Your task to perform on an android device: Do I have any events today? Image 0: 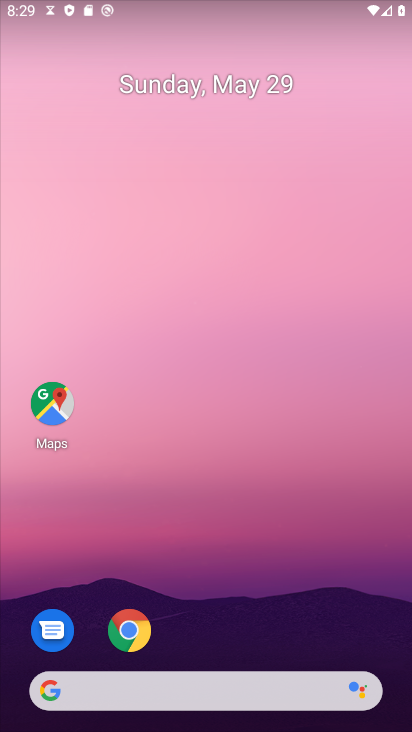
Step 0: click (257, 75)
Your task to perform on an android device: Do I have any events today? Image 1: 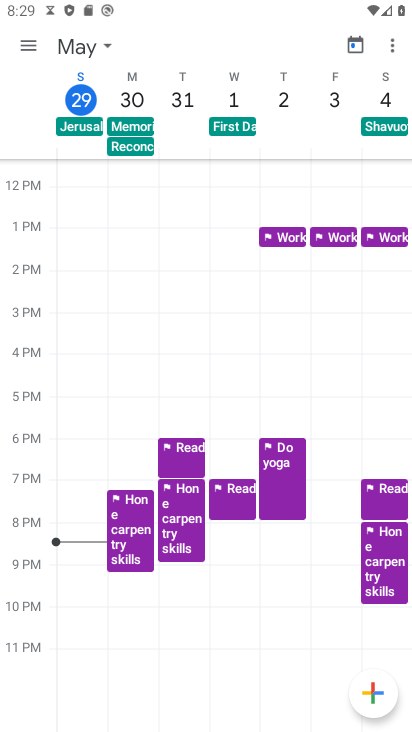
Step 1: click (35, 42)
Your task to perform on an android device: Do I have any events today? Image 2: 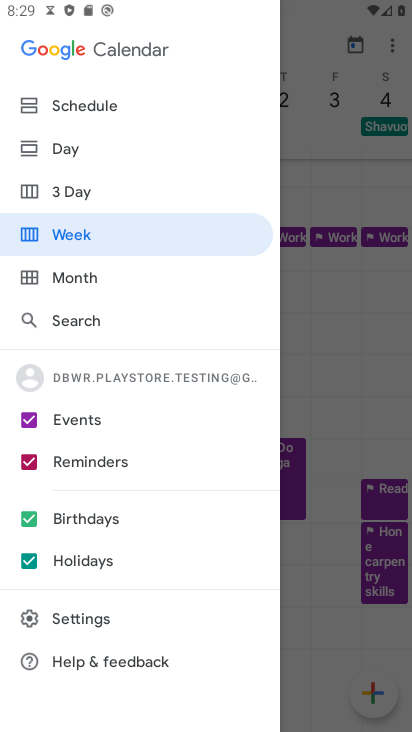
Step 2: click (25, 464)
Your task to perform on an android device: Do I have any events today? Image 3: 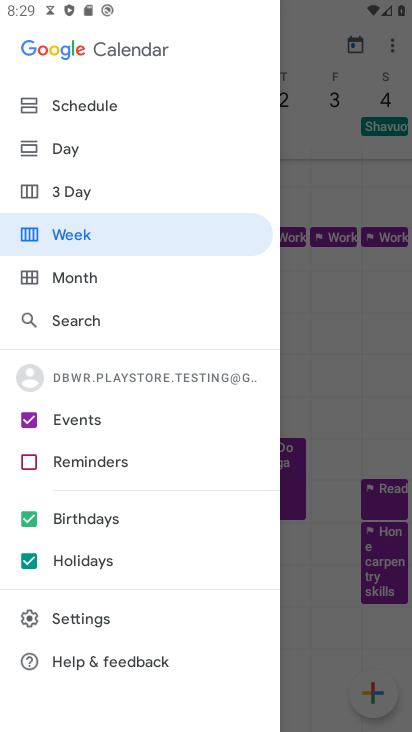
Step 3: click (21, 530)
Your task to perform on an android device: Do I have any events today? Image 4: 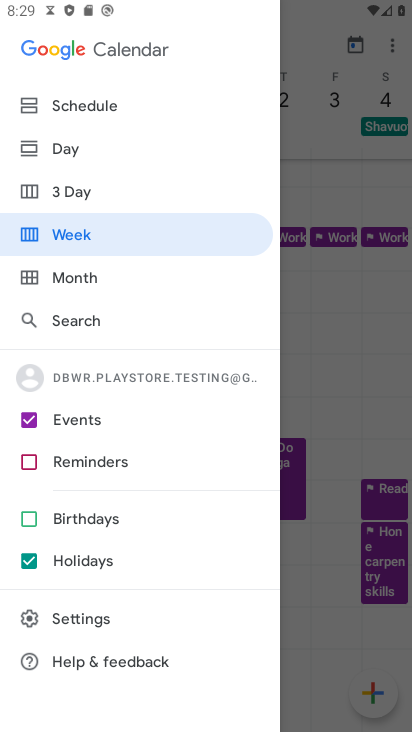
Step 4: click (31, 573)
Your task to perform on an android device: Do I have any events today? Image 5: 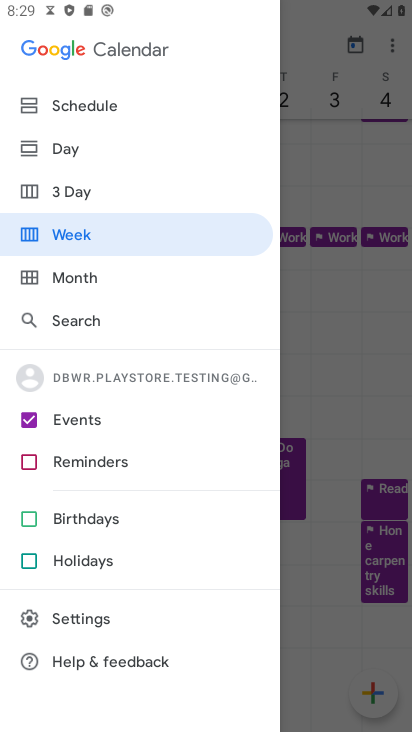
Step 5: click (117, 99)
Your task to perform on an android device: Do I have any events today? Image 6: 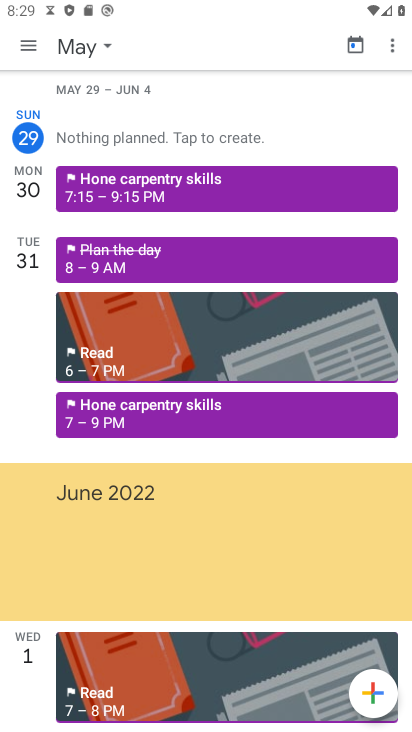
Step 6: drag from (235, 221) to (227, 122)
Your task to perform on an android device: Do I have any events today? Image 7: 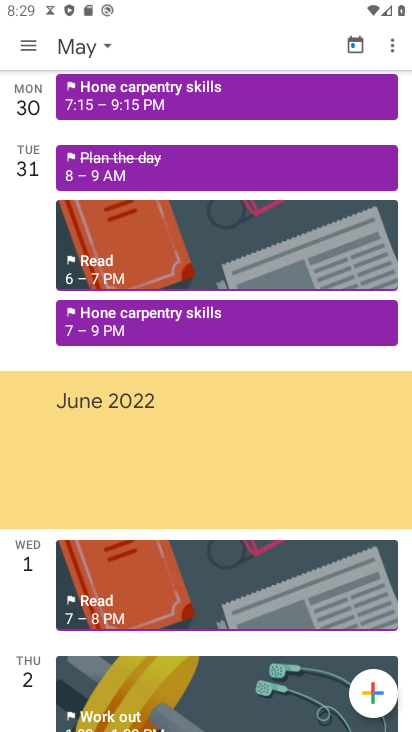
Step 7: click (179, 95)
Your task to perform on an android device: Do I have any events today? Image 8: 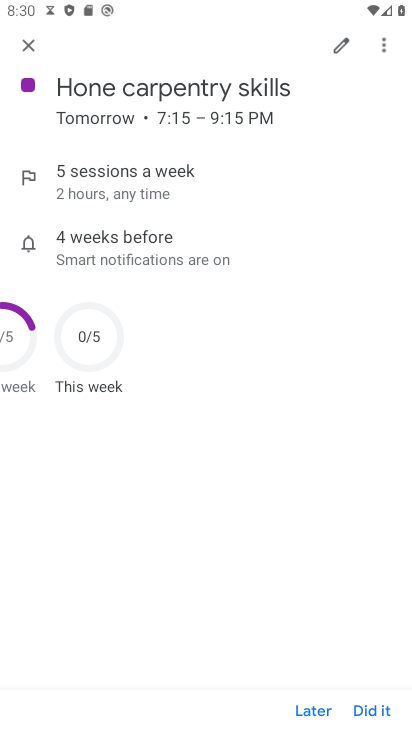
Step 8: task complete